Your task to perform on an android device: Search for sushi restaurants on Maps Image 0: 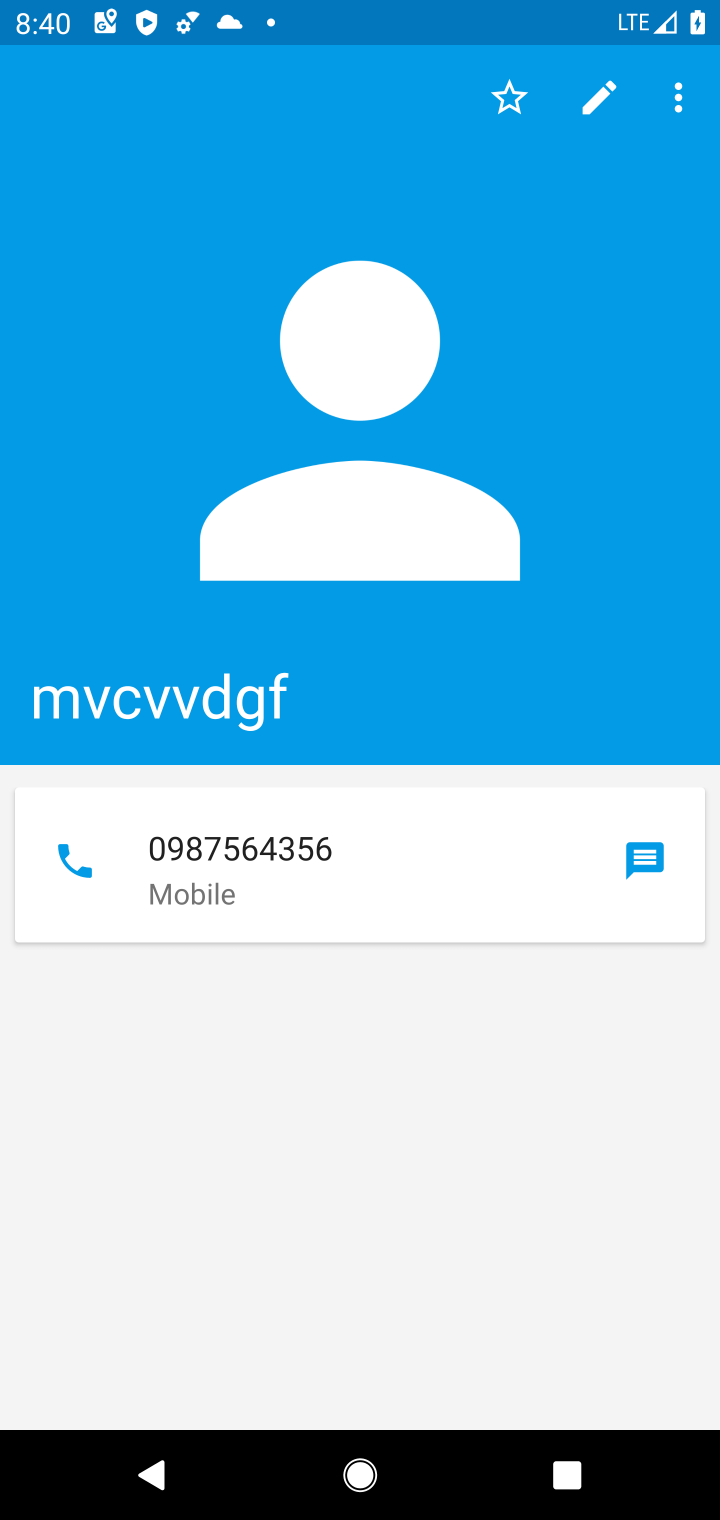
Step 0: press home button
Your task to perform on an android device: Search for sushi restaurants on Maps Image 1: 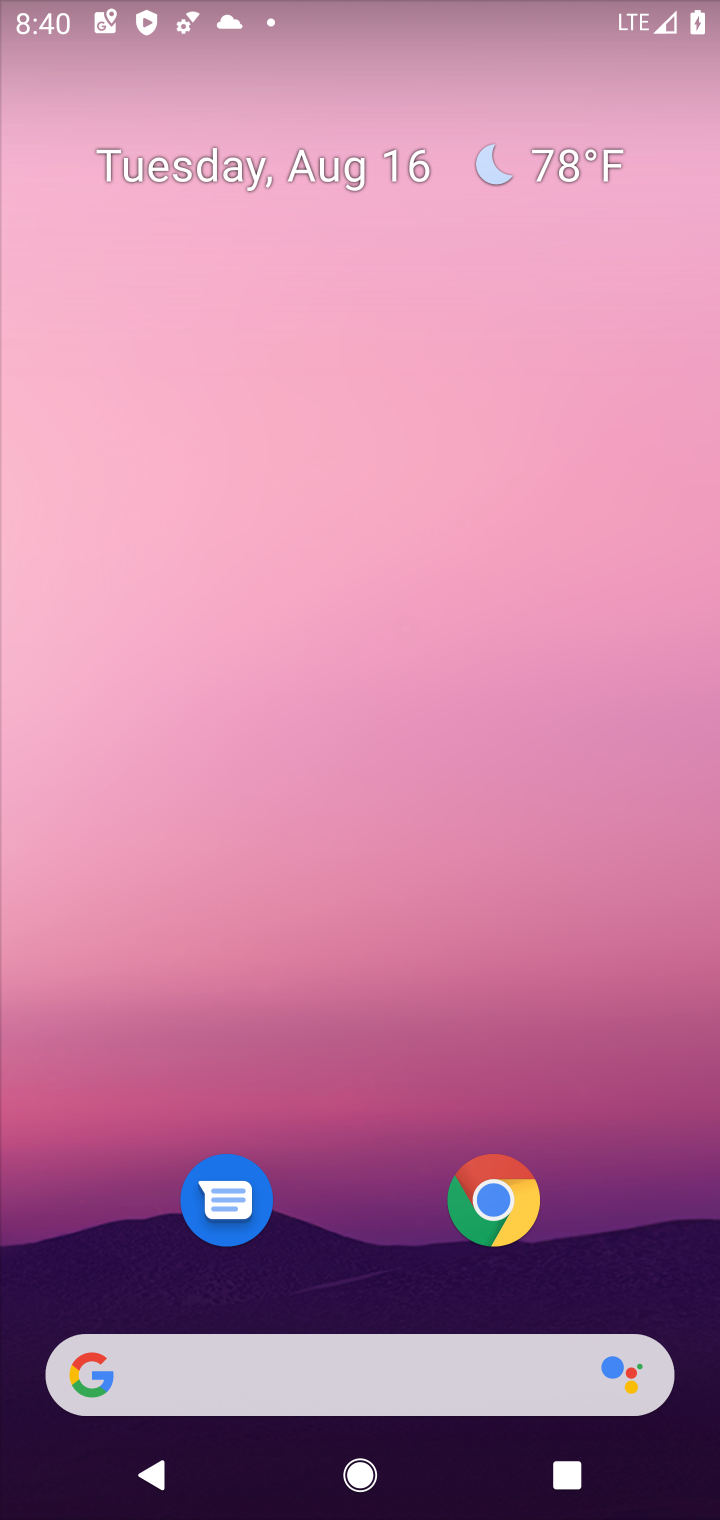
Step 1: drag from (645, 1279) to (601, 164)
Your task to perform on an android device: Search for sushi restaurants on Maps Image 2: 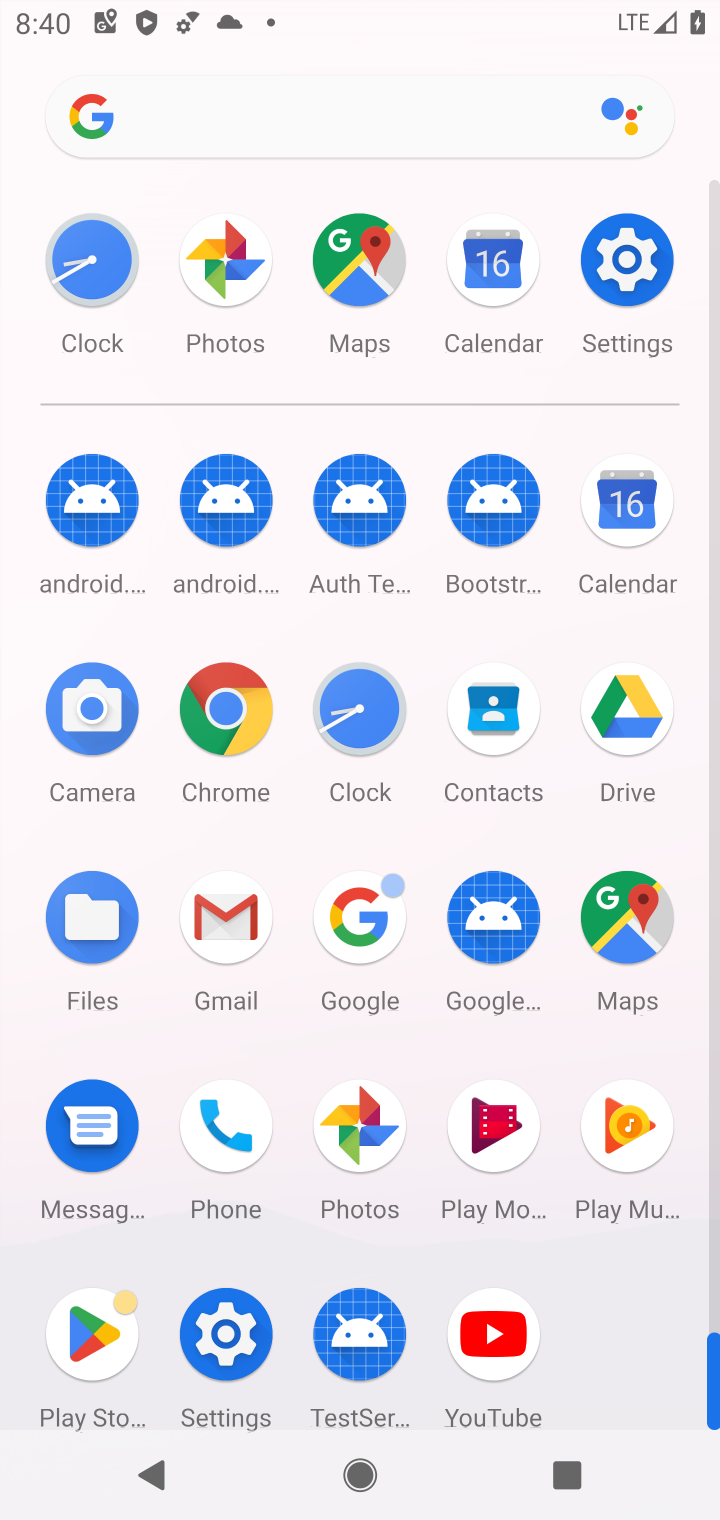
Step 2: click (631, 918)
Your task to perform on an android device: Search for sushi restaurants on Maps Image 3: 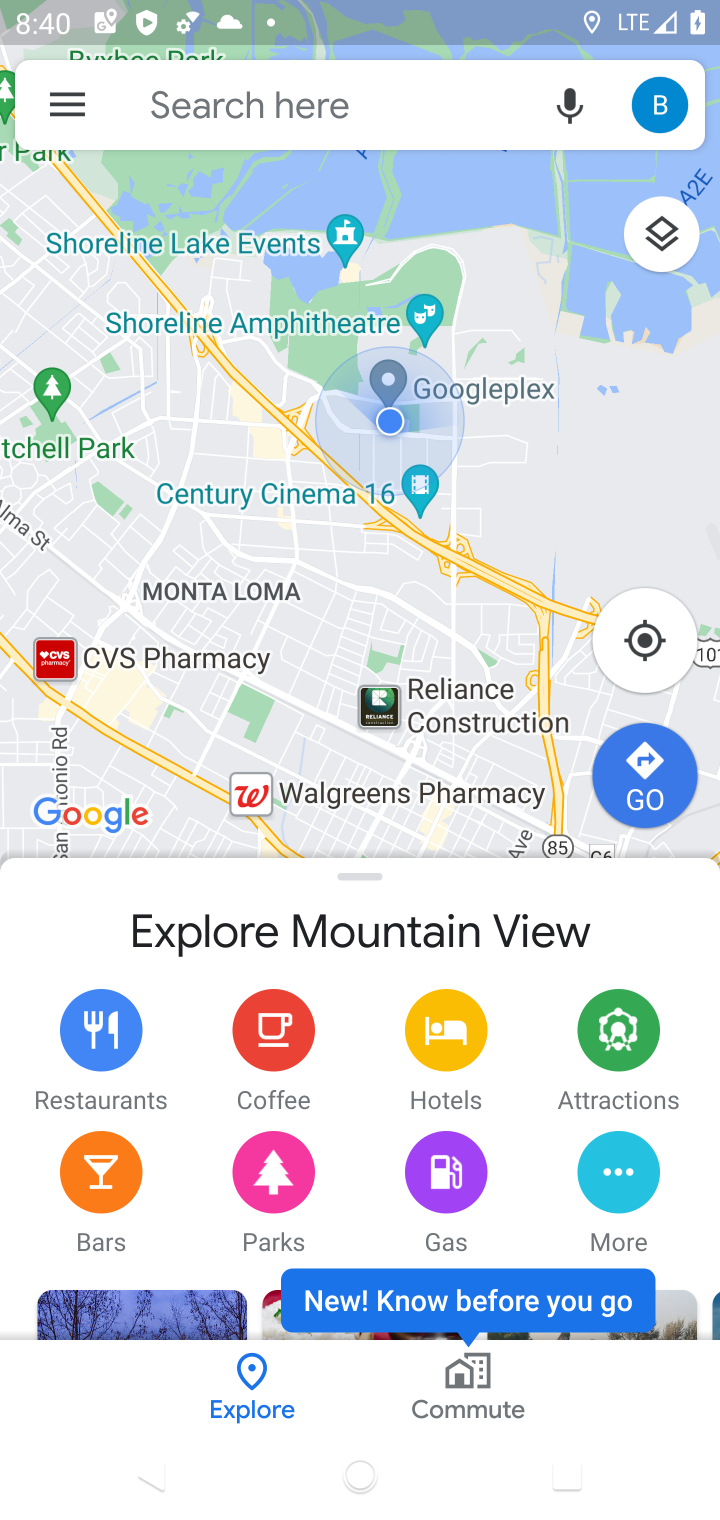
Step 3: click (220, 102)
Your task to perform on an android device: Search for sushi restaurants on Maps Image 4: 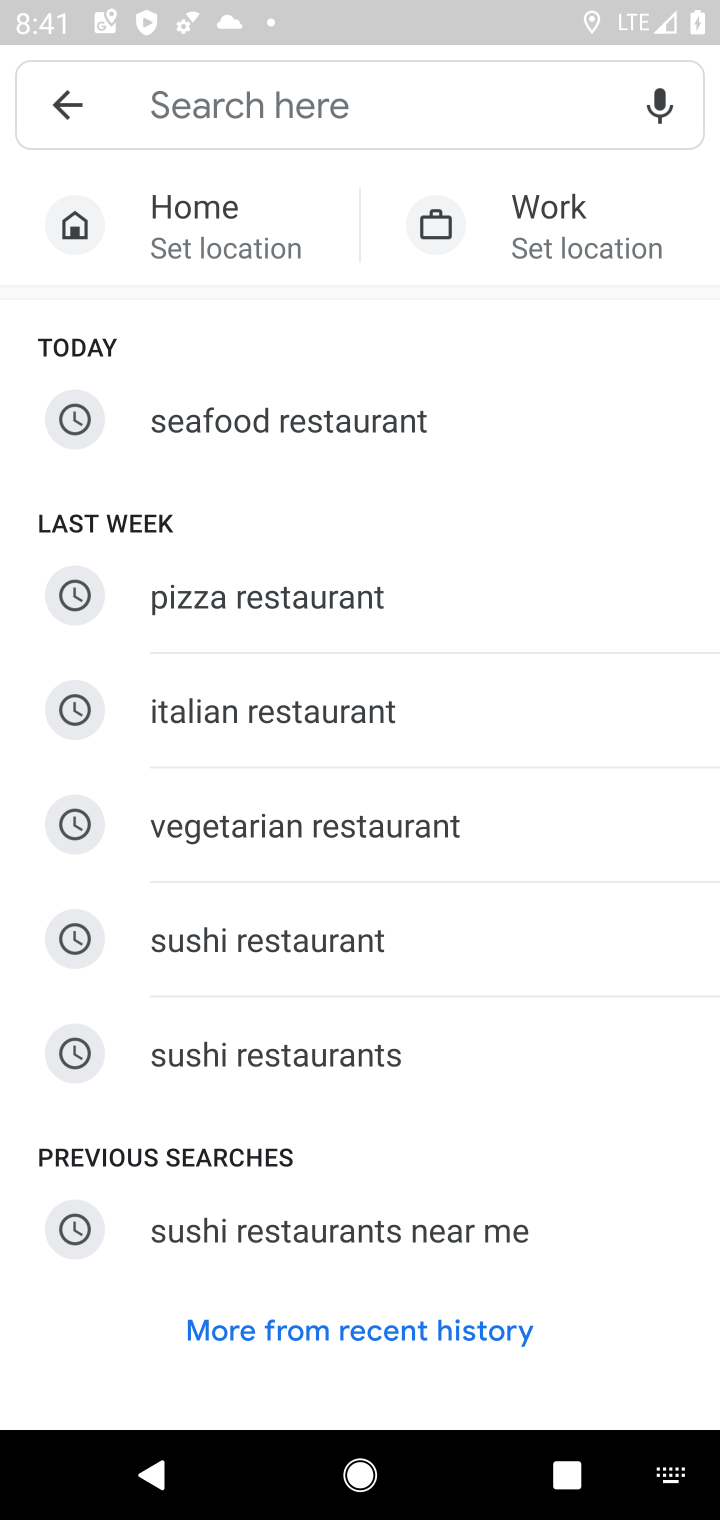
Step 4: type "sushi restaurants"
Your task to perform on an android device: Search for sushi restaurants on Maps Image 5: 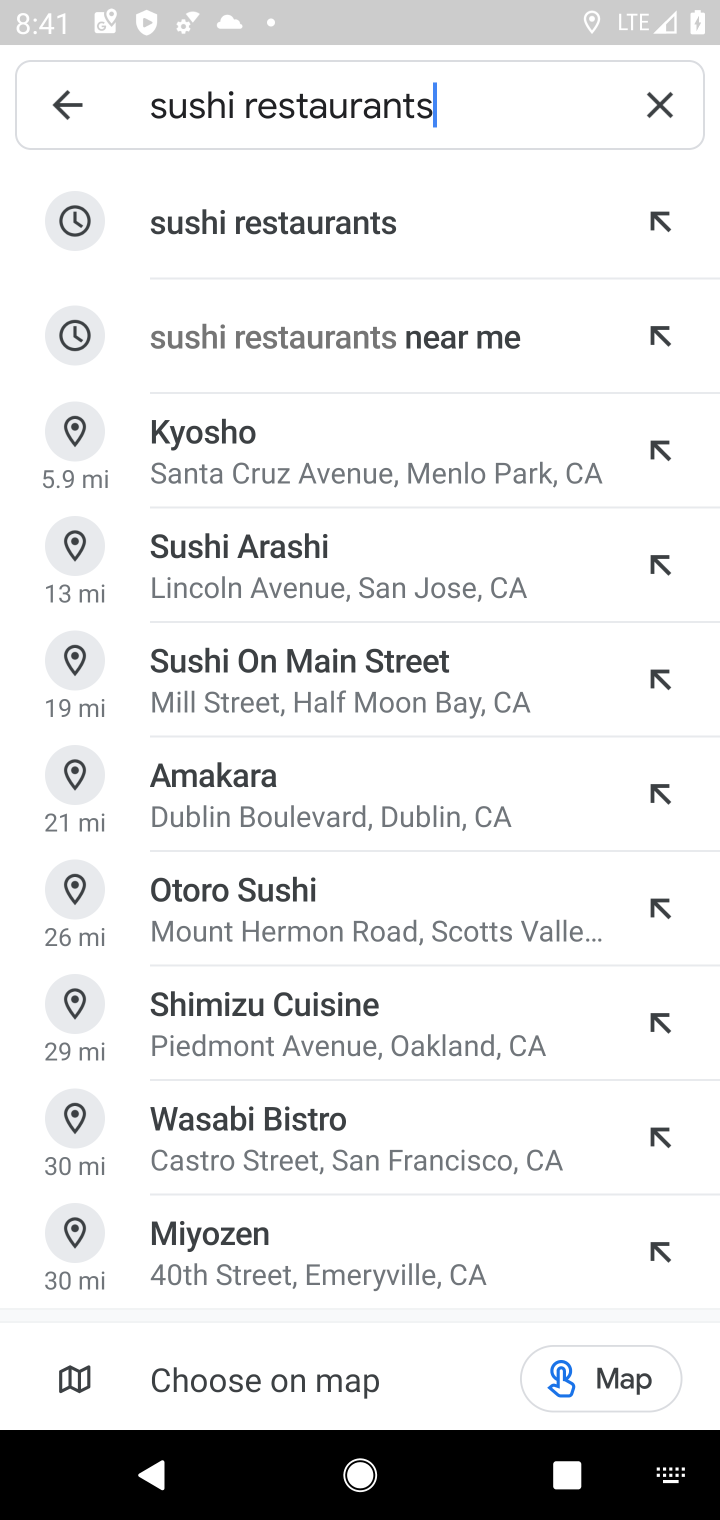
Step 5: click (304, 232)
Your task to perform on an android device: Search for sushi restaurants on Maps Image 6: 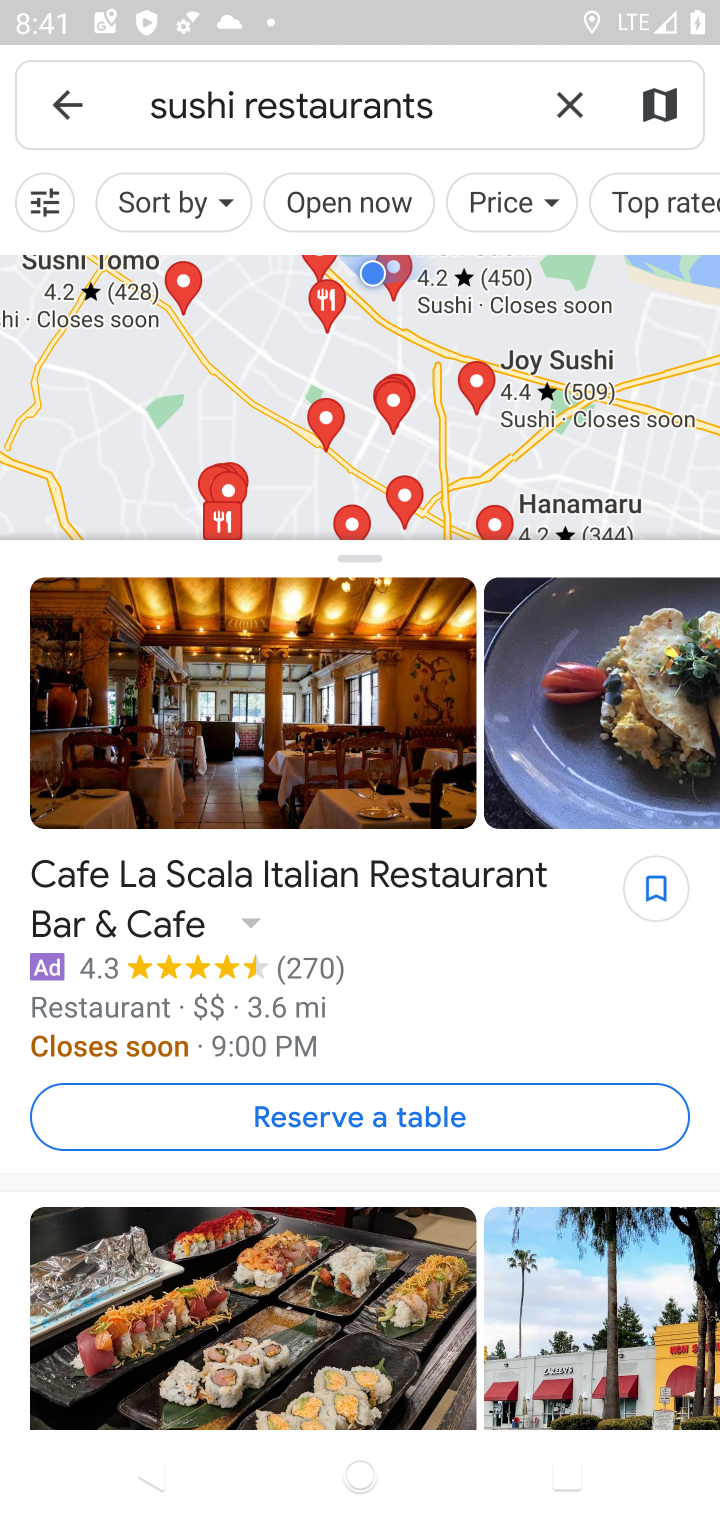
Step 6: task complete